Your task to perform on an android device: Show me the alarms in the clock app Image 0: 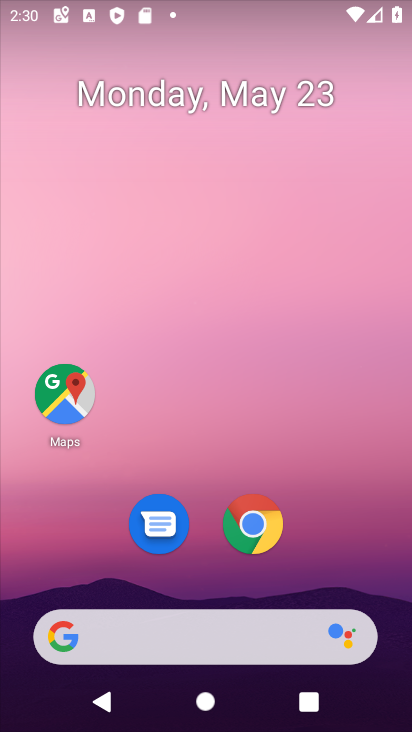
Step 0: drag from (270, 441) to (292, 24)
Your task to perform on an android device: Show me the alarms in the clock app Image 1: 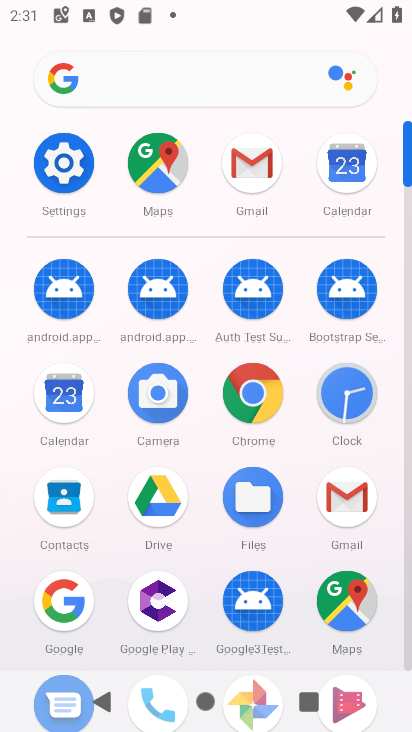
Step 1: click (341, 400)
Your task to perform on an android device: Show me the alarms in the clock app Image 2: 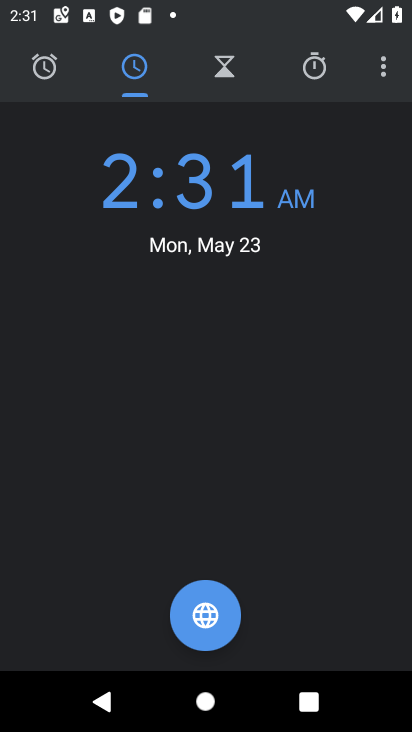
Step 2: click (49, 66)
Your task to perform on an android device: Show me the alarms in the clock app Image 3: 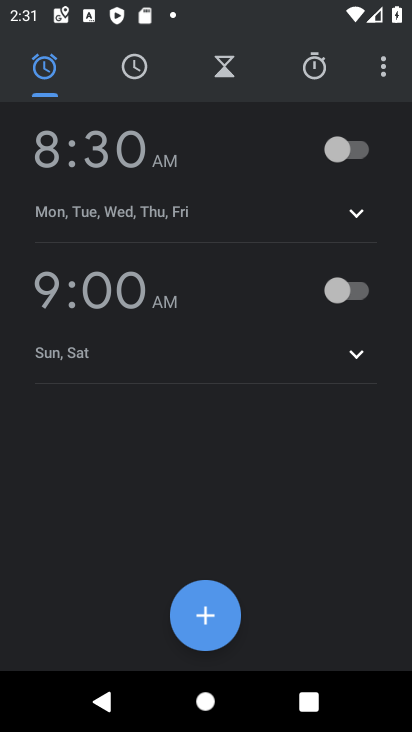
Step 3: task complete